Your task to perform on an android device: delete browsing data in the chrome app Image 0: 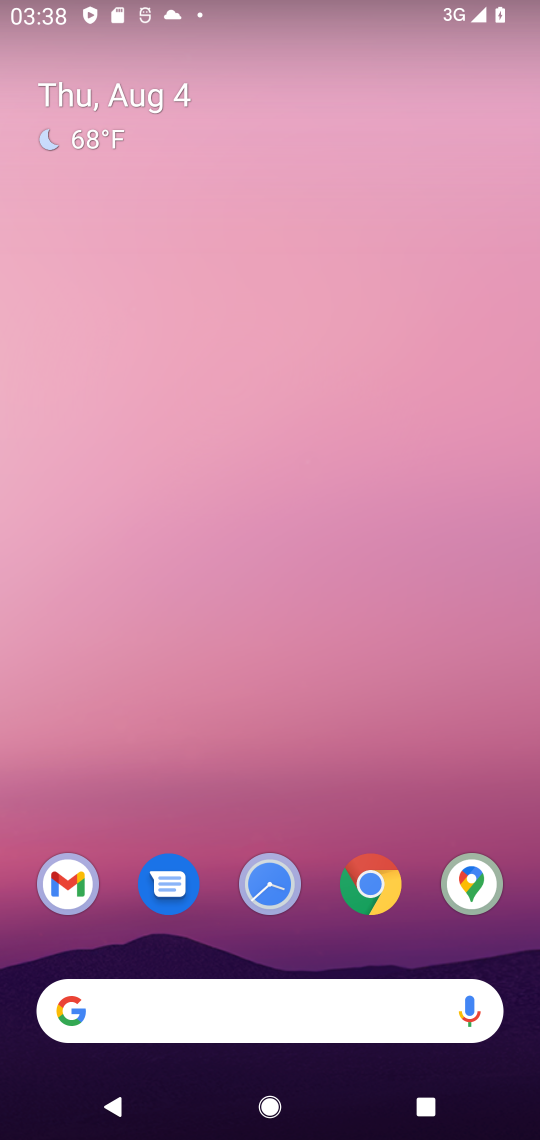
Step 0: press home button
Your task to perform on an android device: delete browsing data in the chrome app Image 1: 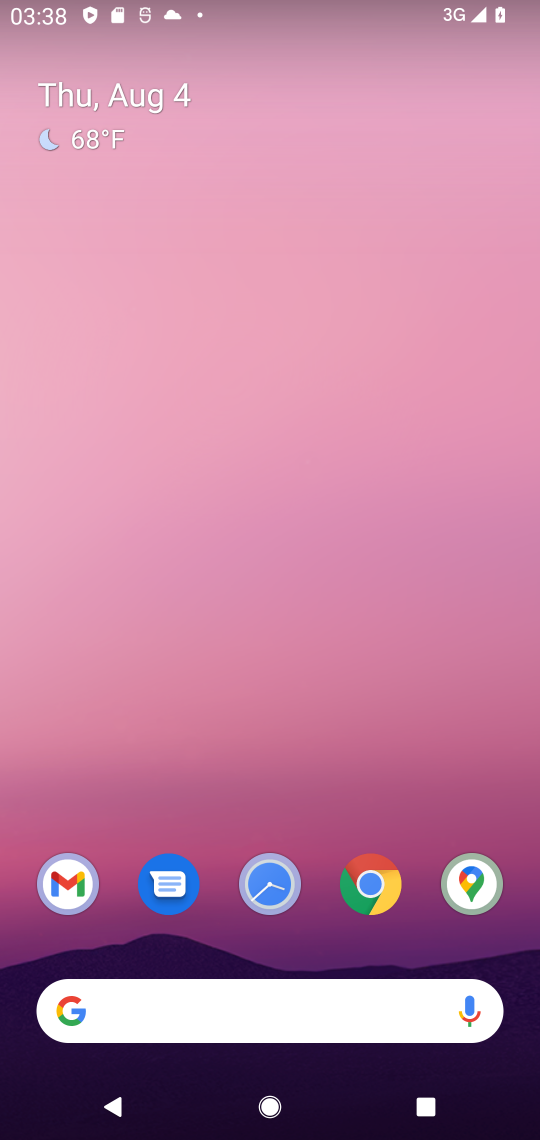
Step 1: drag from (302, 830) to (296, 258)
Your task to perform on an android device: delete browsing data in the chrome app Image 2: 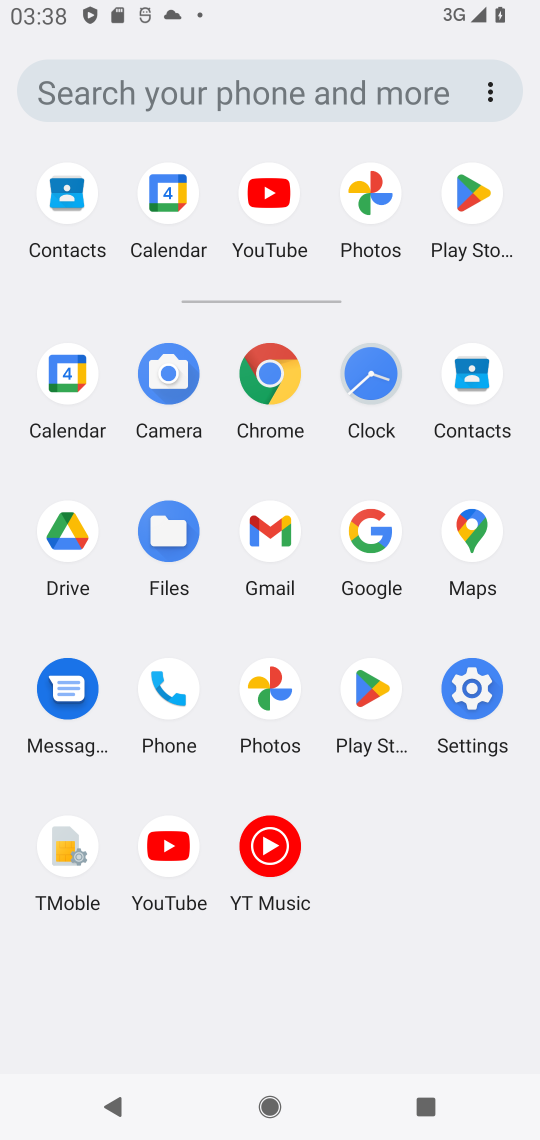
Step 2: click (273, 370)
Your task to perform on an android device: delete browsing data in the chrome app Image 3: 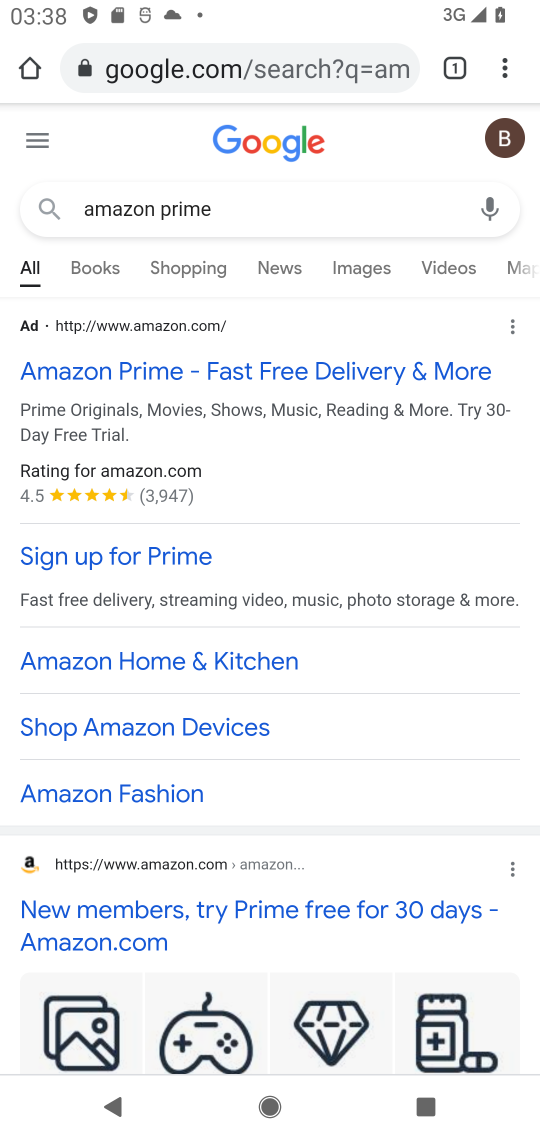
Step 3: click (503, 70)
Your task to perform on an android device: delete browsing data in the chrome app Image 4: 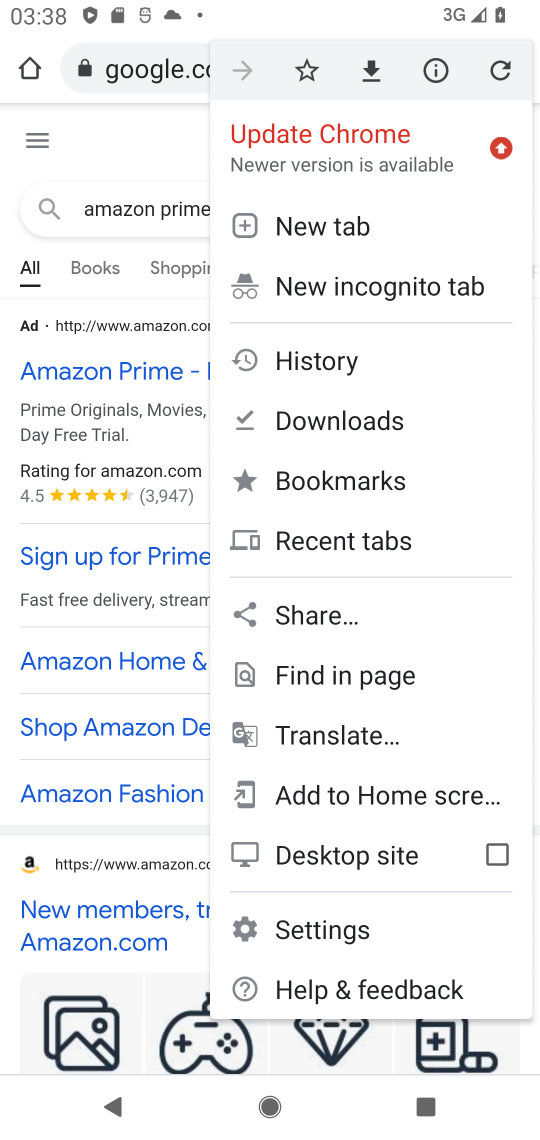
Step 4: click (332, 932)
Your task to perform on an android device: delete browsing data in the chrome app Image 5: 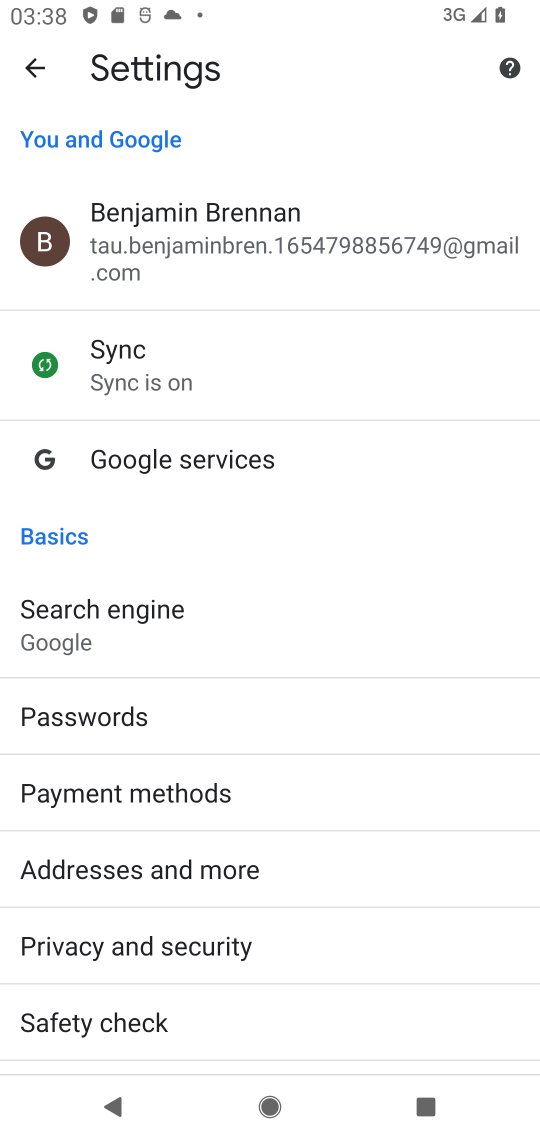
Step 5: click (285, 939)
Your task to perform on an android device: delete browsing data in the chrome app Image 6: 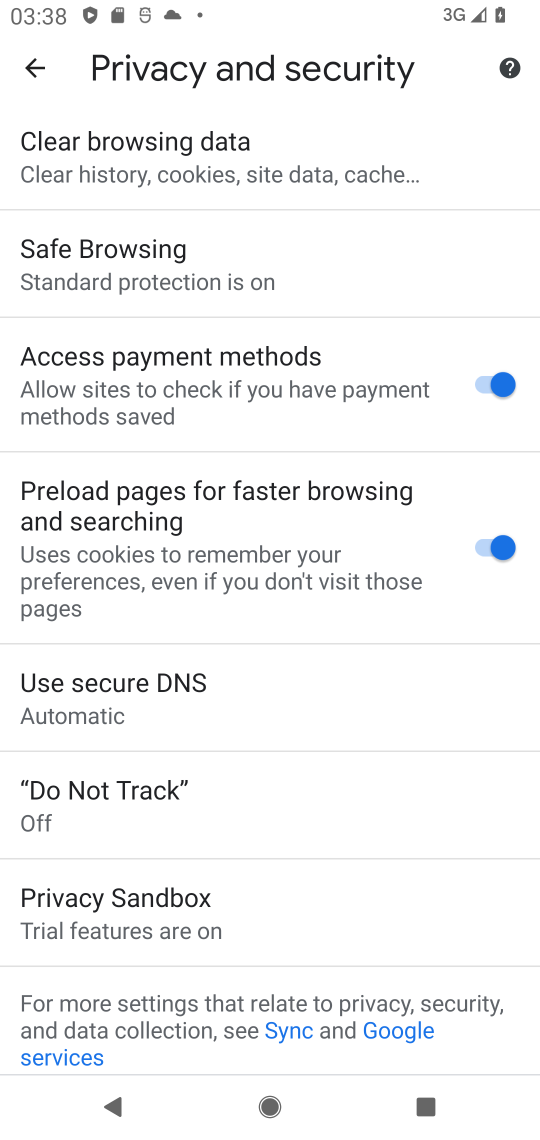
Step 6: click (333, 151)
Your task to perform on an android device: delete browsing data in the chrome app Image 7: 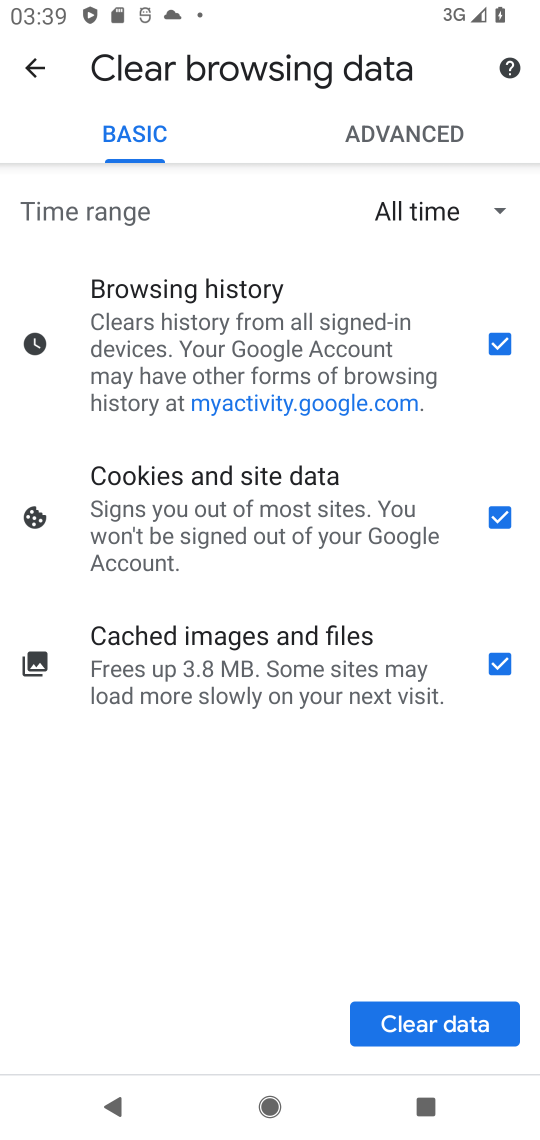
Step 7: click (419, 1030)
Your task to perform on an android device: delete browsing data in the chrome app Image 8: 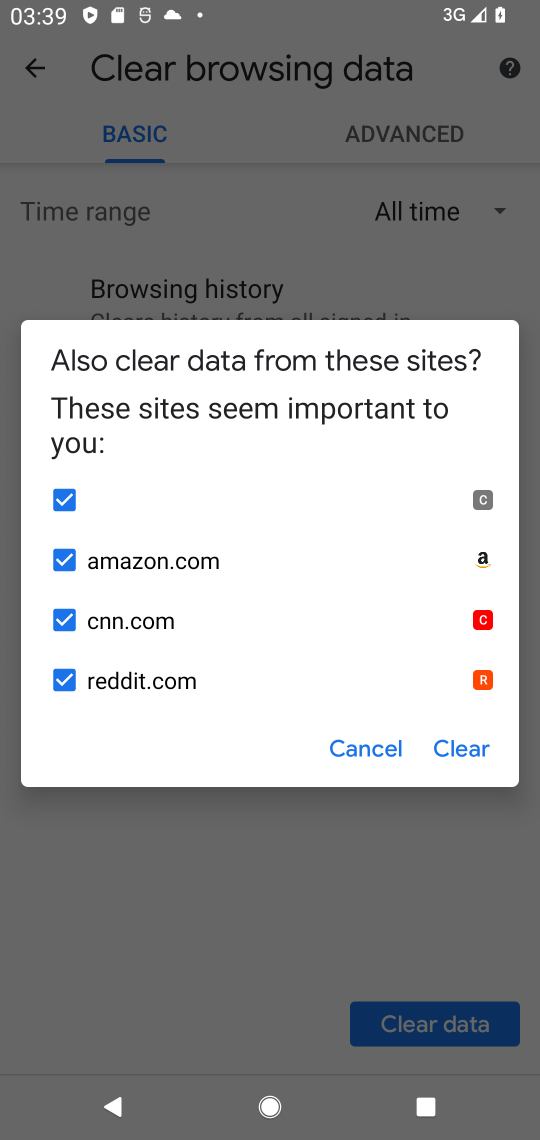
Step 8: click (465, 748)
Your task to perform on an android device: delete browsing data in the chrome app Image 9: 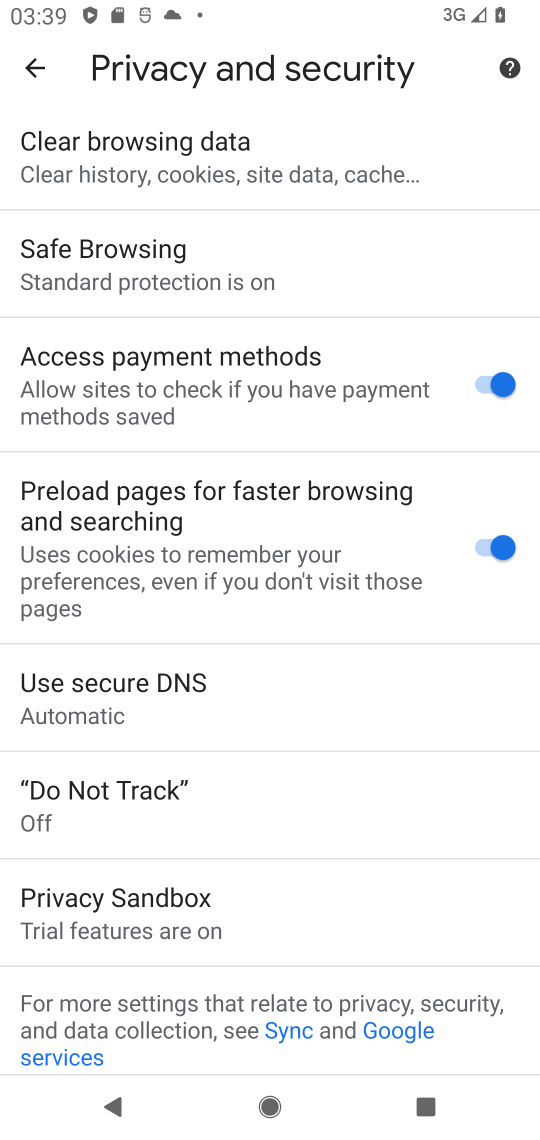
Step 9: task complete